Your task to perform on an android device: toggle wifi Image 0: 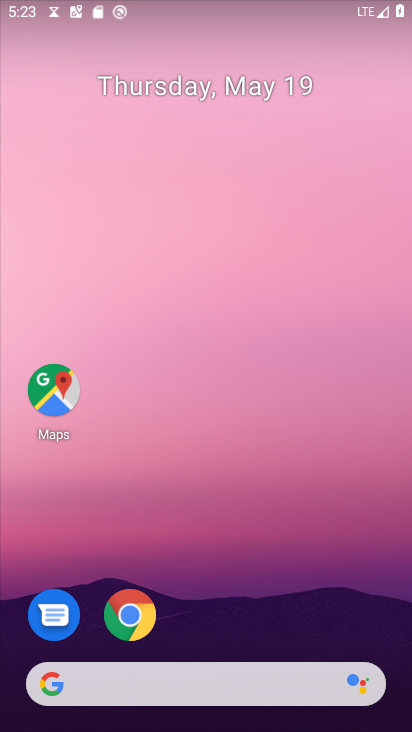
Step 0: drag from (199, 538) to (219, 11)
Your task to perform on an android device: toggle wifi Image 1: 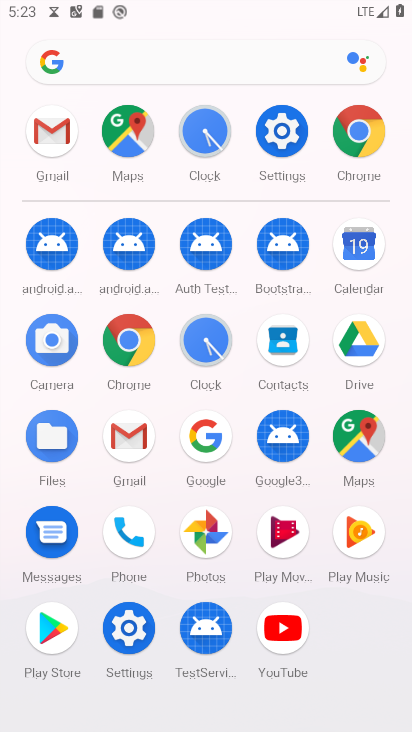
Step 1: click (291, 128)
Your task to perform on an android device: toggle wifi Image 2: 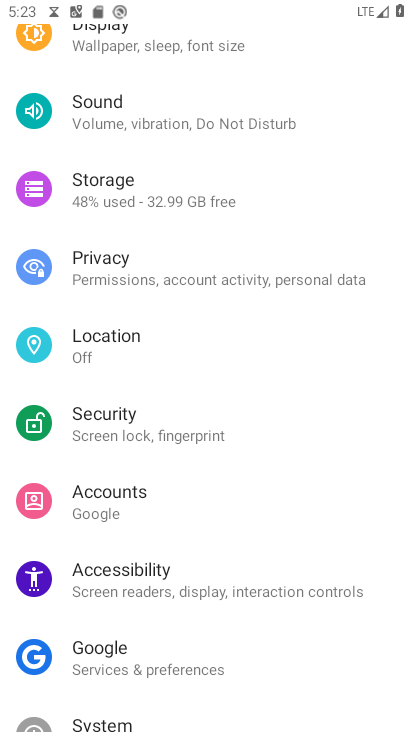
Step 2: drag from (291, 128) to (249, 723)
Your task to perform on an android device: toggle wifi Image 3: 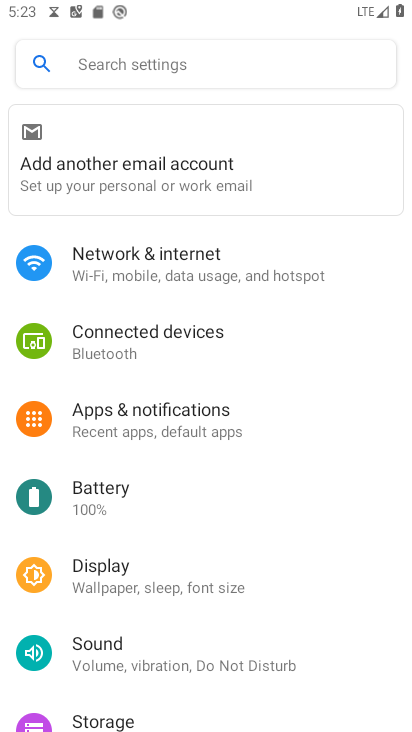
Step 3: click (195, 277)
Your task to perform on an android device: toggle wifi Image 4: 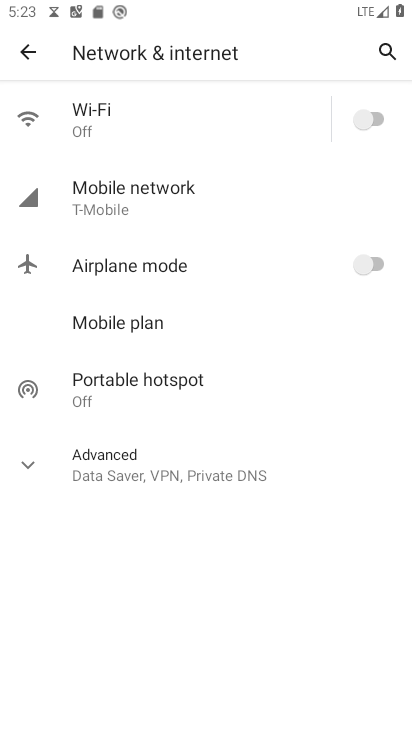
Step 4: click (385, 109)
Your task to perform on an android device: toggle wifi Image 5: 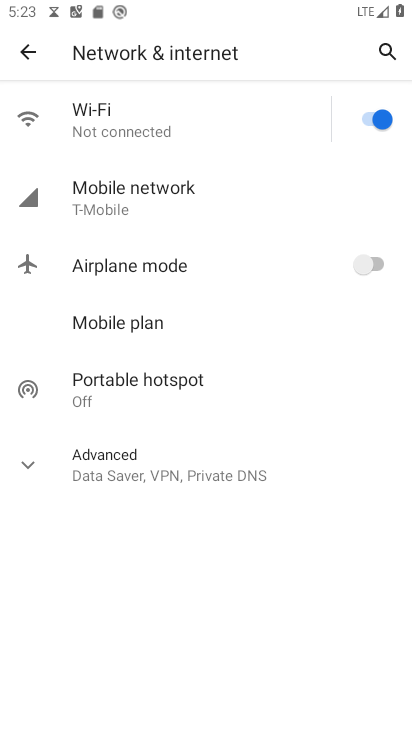
Step 5: task complete